Your task to perform on an android device: Open internet settings Image 0: 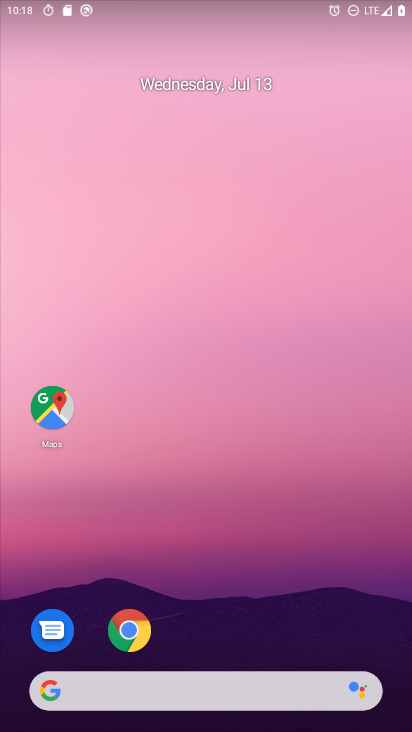
Step 0: drag from (348, 610) to (198, 75)
Your task to perform on an android device: Open internet settings Image 1: 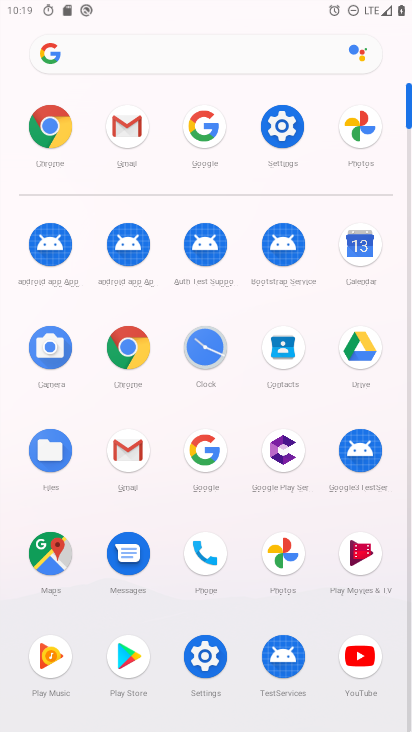
Step 1: click (274, 127)
Your task to perform on an android device: Open internet settings Image 2: 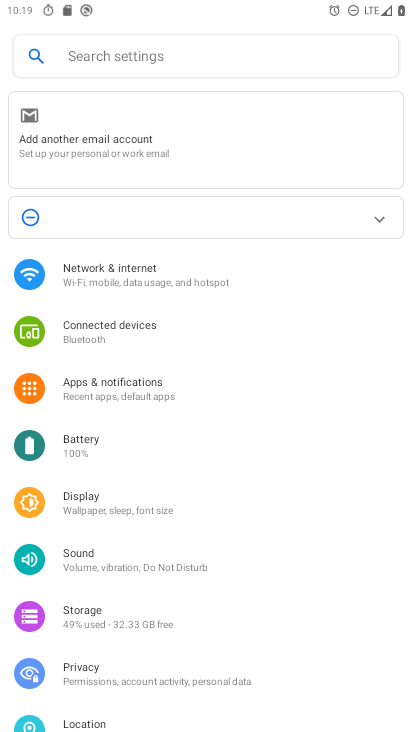
Step 2: click (174, 267)
Your task to perform on an android device: Open internet settings Image 3: 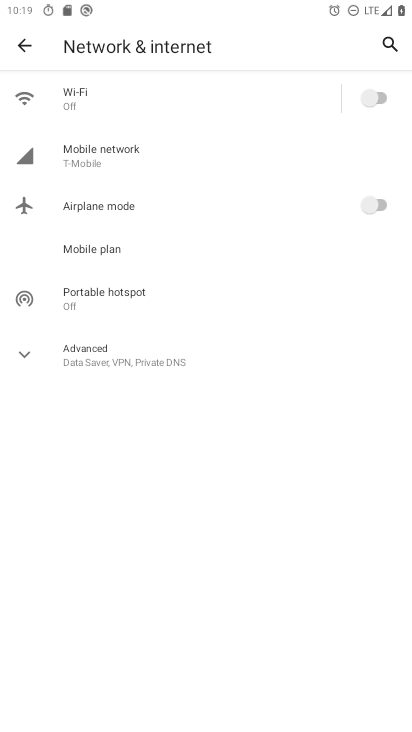
Step 3: task complete